Your task to perform on an android device: turn on improve location accuracy Image 0: 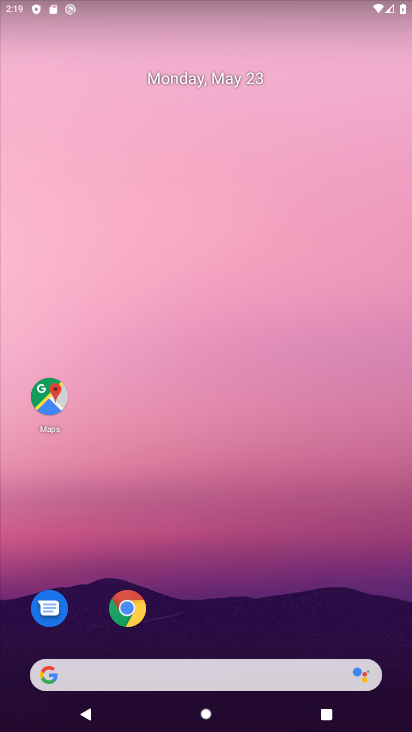
Step 0: drag from (211, 637) to (197, 4)
Your task to perform on an android device: turn on improve location accuracy Image 1: 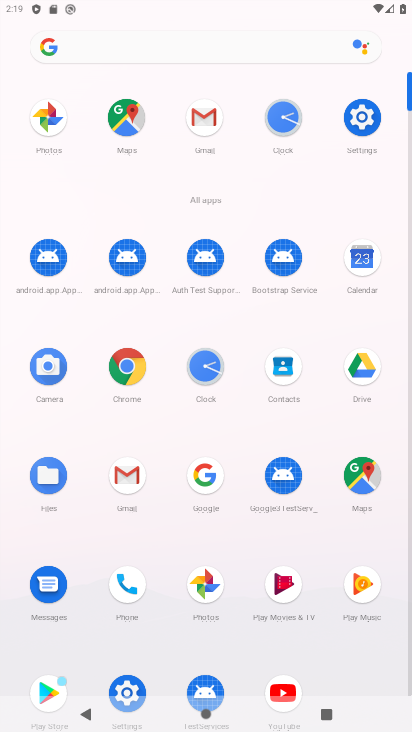
Step 1: click (365, 125)
Your task to perform on an android device: turn on improve location accuracy Image 2: 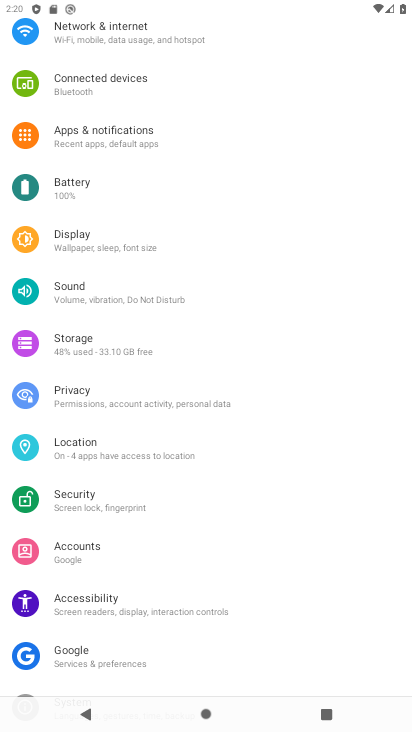
Step 2: click (128, 447)
Your task to perform on an android device: turn on improve location accuracy Image 3: 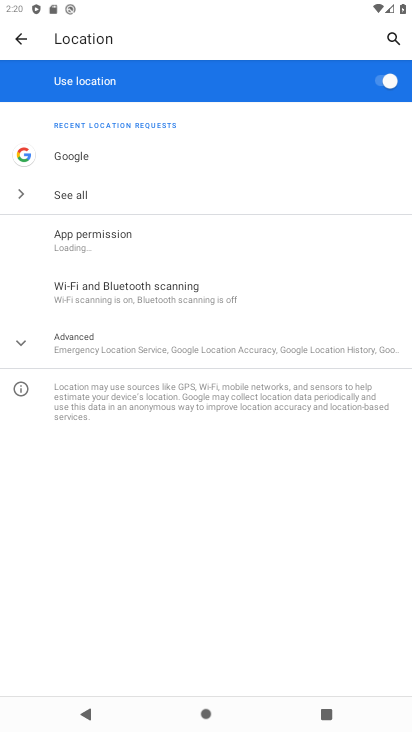
Step 3: click (145, 343)
Your task to perform on an android device: turn on improve location accuracy Image 4: 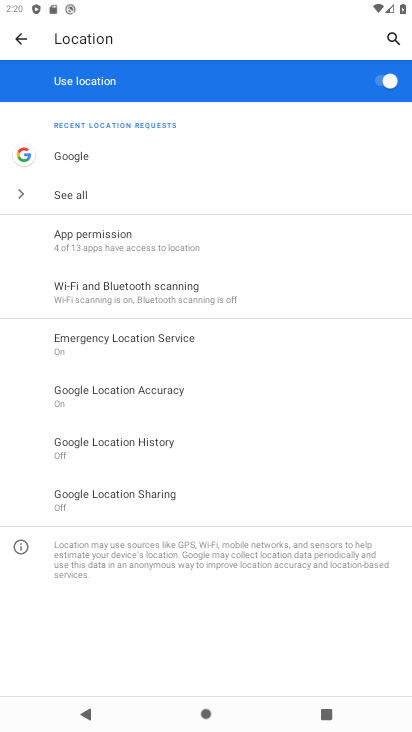
Step 4: click (172, 391)
Your task to perform on an android device: turn on improve location accuracy Image 5: 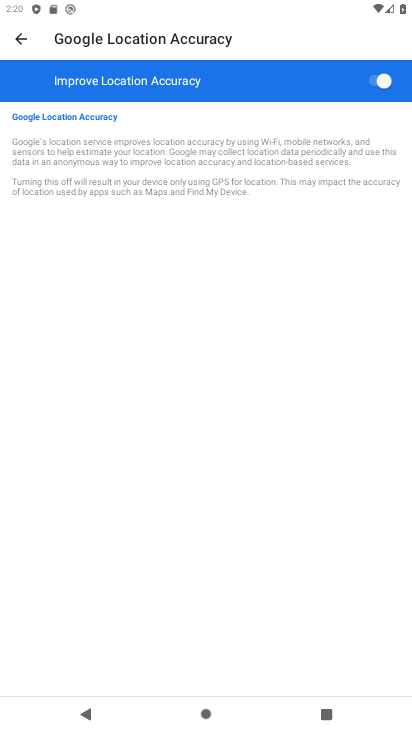
Step 5: task complete